Your task to perform on an android device: turn off sleep mode Image 0: 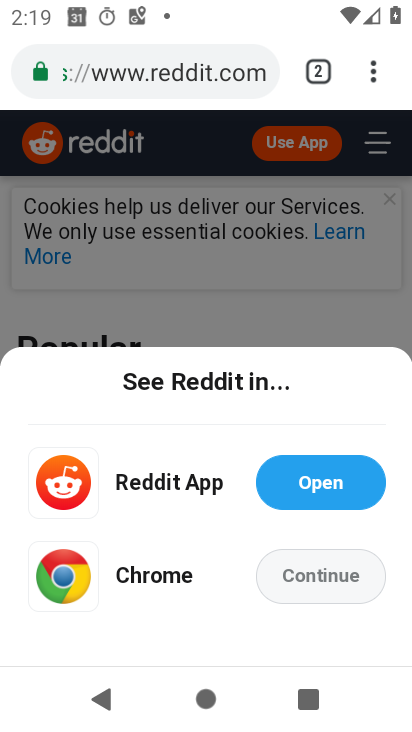
Step 0: press home button
Your task to perform on an android device: turn off sleep mode Image 1: 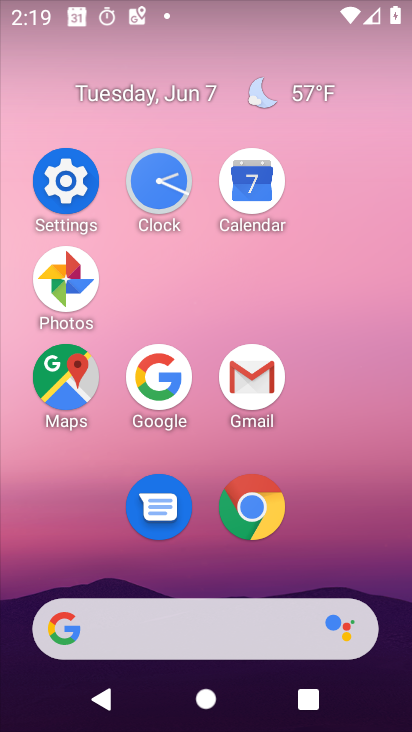
Step 1: click (88, 188)
Your task to perform on an android device: turn off sleep mode Image 2: 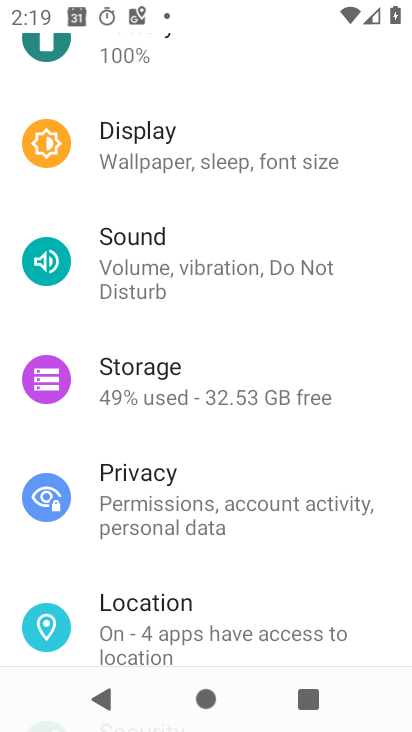
Step 2: click (204, 186)
Your task to perform on an android device: turn off sleep mode Image 3: 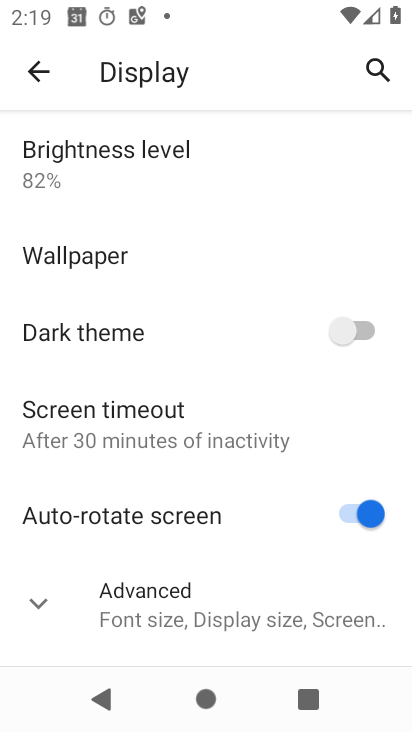
Step 3: click (211, 430)
Your task to perform on an android device: turn off sleep mode Image 4: 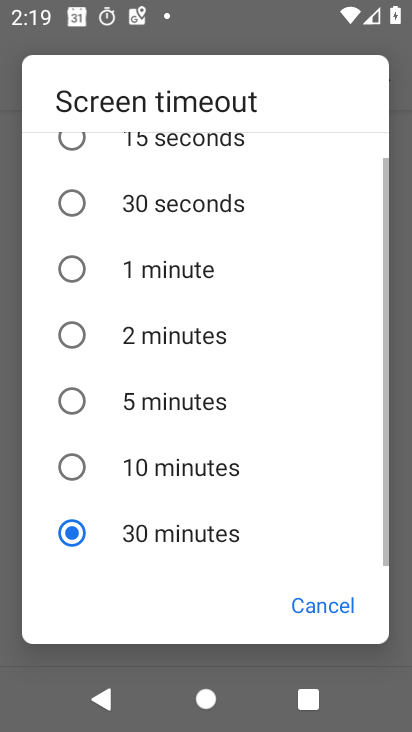
Step 4: task complete